Your task to perform on an android device: install app "Lyft - Rideshare, Bikes, Scooters & Transit" Image 0: 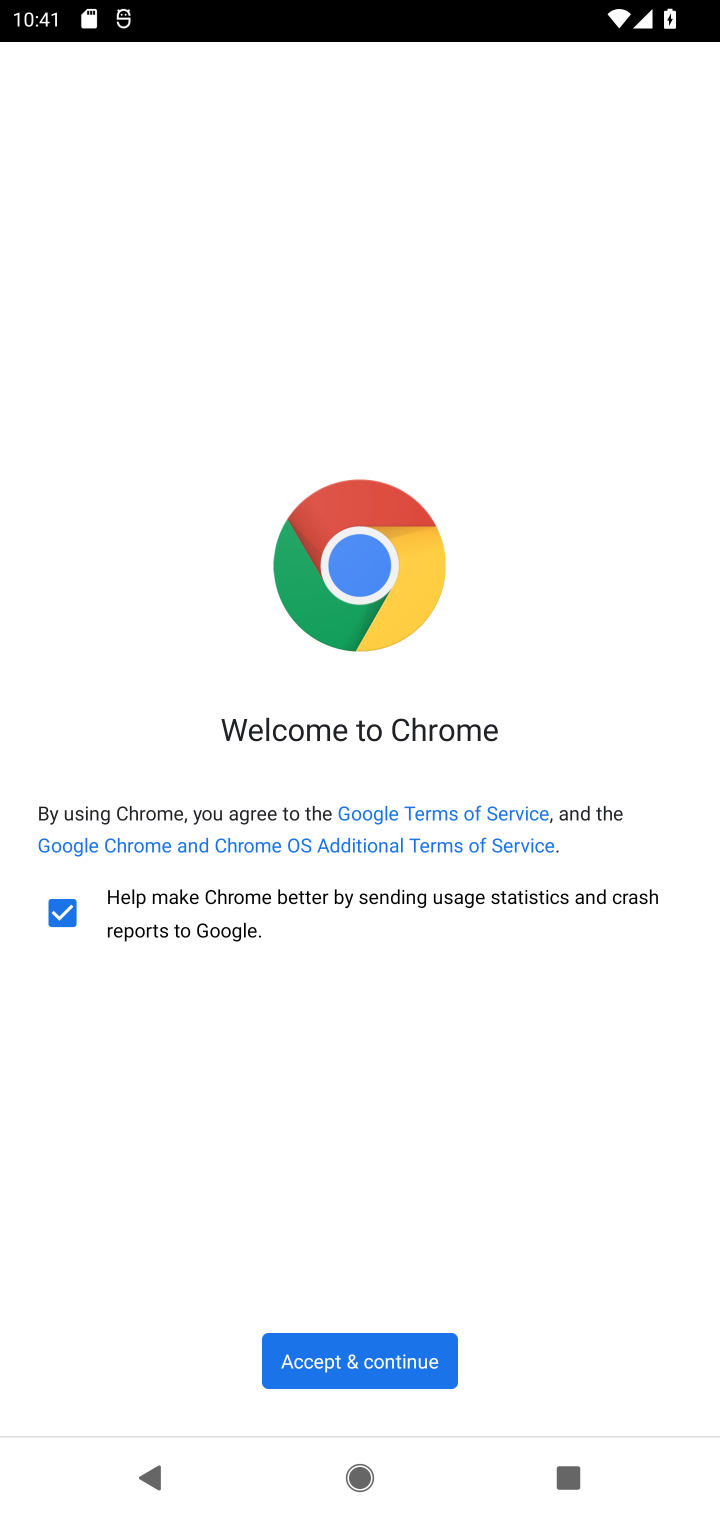
Step 0: press home button
Your task to perform on an android device: install app "Lyft - Rideshare, Bikes, Scooters & Transit" Image 1: 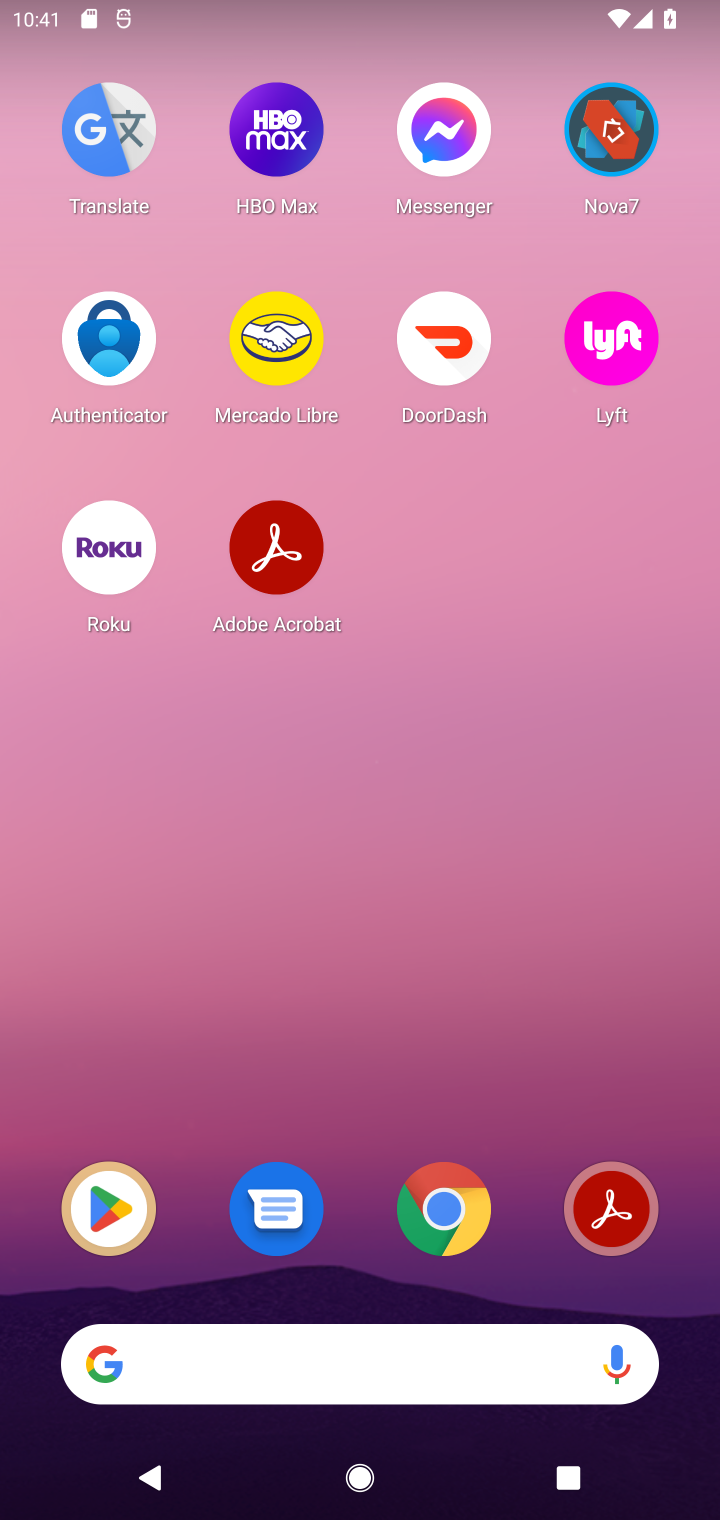
Step 1: drag from (490, 985) to (440, 158)
Your task to perform on an android device: install app "Lyft - Rideshare, Bikes, Scooters & Transit" Image 2: 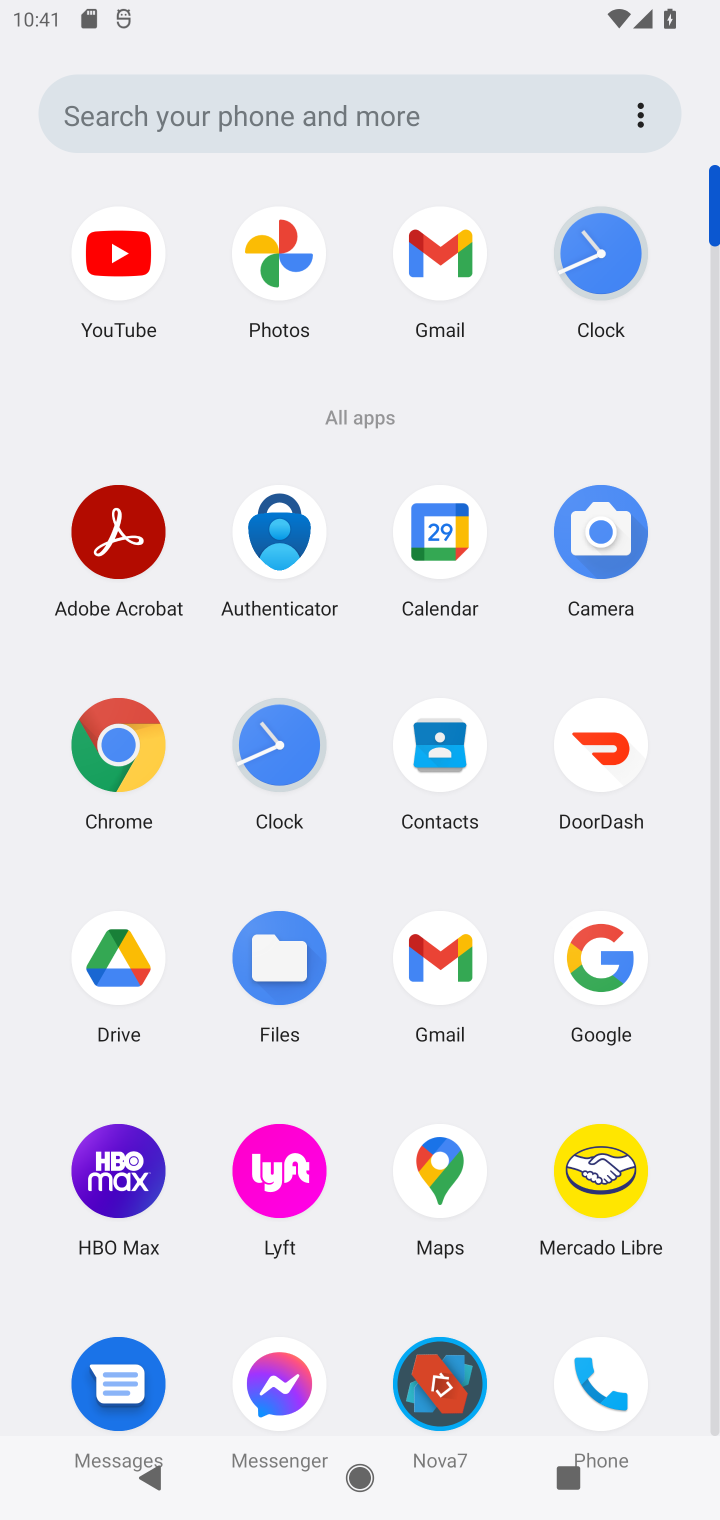
Step 2: drag from (518, 1249) to (502, 497)
Your task to perform on an android device: install app "Lyft - Rideshare, Bikes, Scooters & Transit" Image 3: 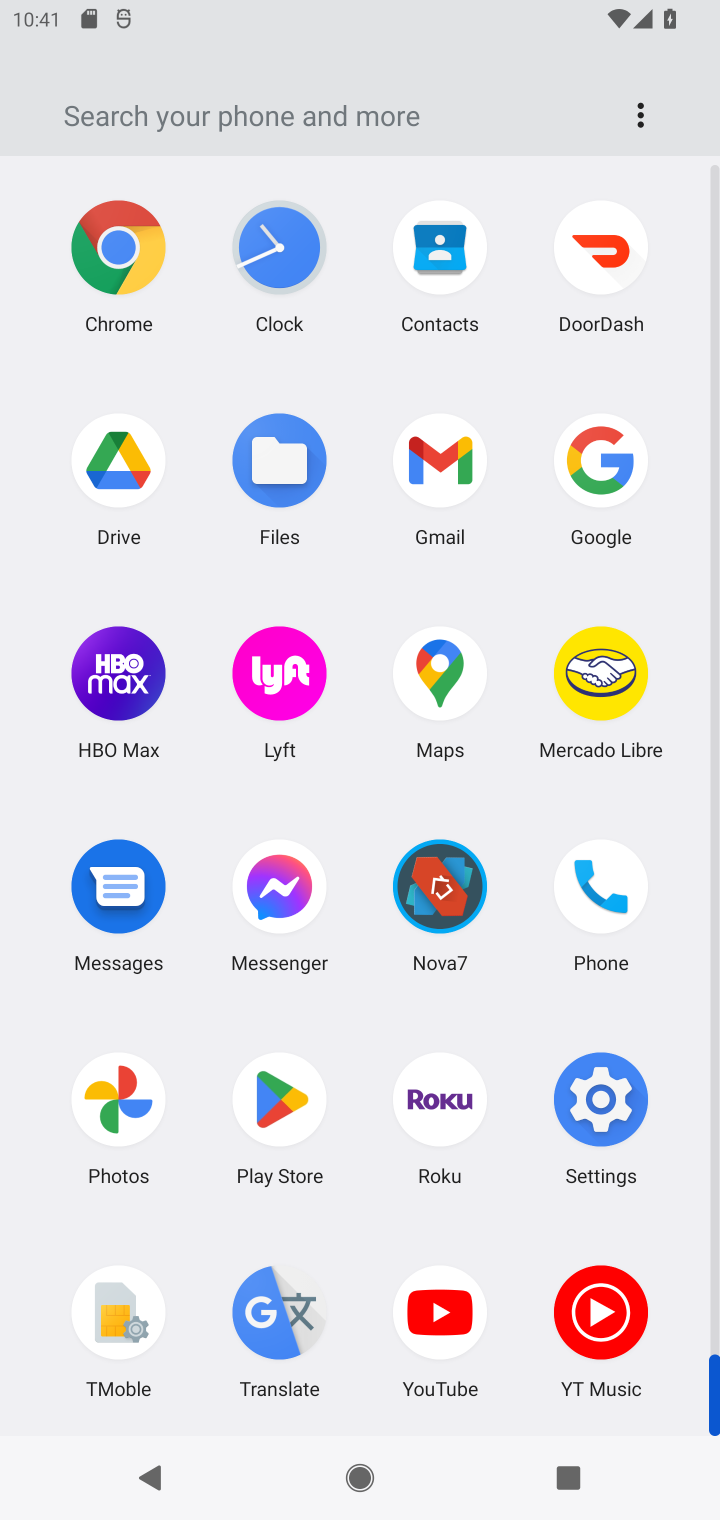
Step 3: click (286, 1086)
Your task to perform on an android device: install app "Lyft - Rideshare, Bikes, Scooters & Transit" Image 4: 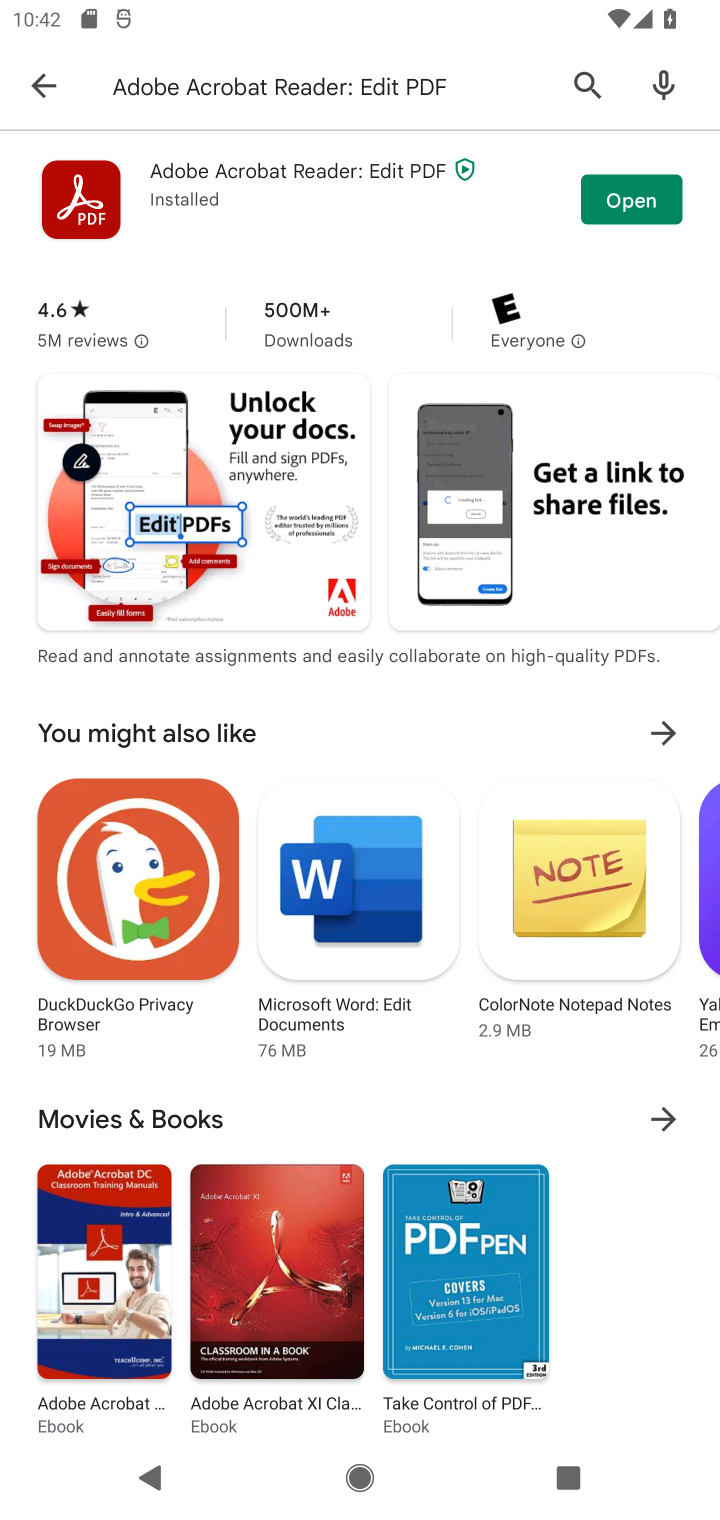
Step 4: click (297, 91)
Your task to perform on an android device: install app "Lyft - Rideshare, Bikes, Scooters & Transit" Image 5: 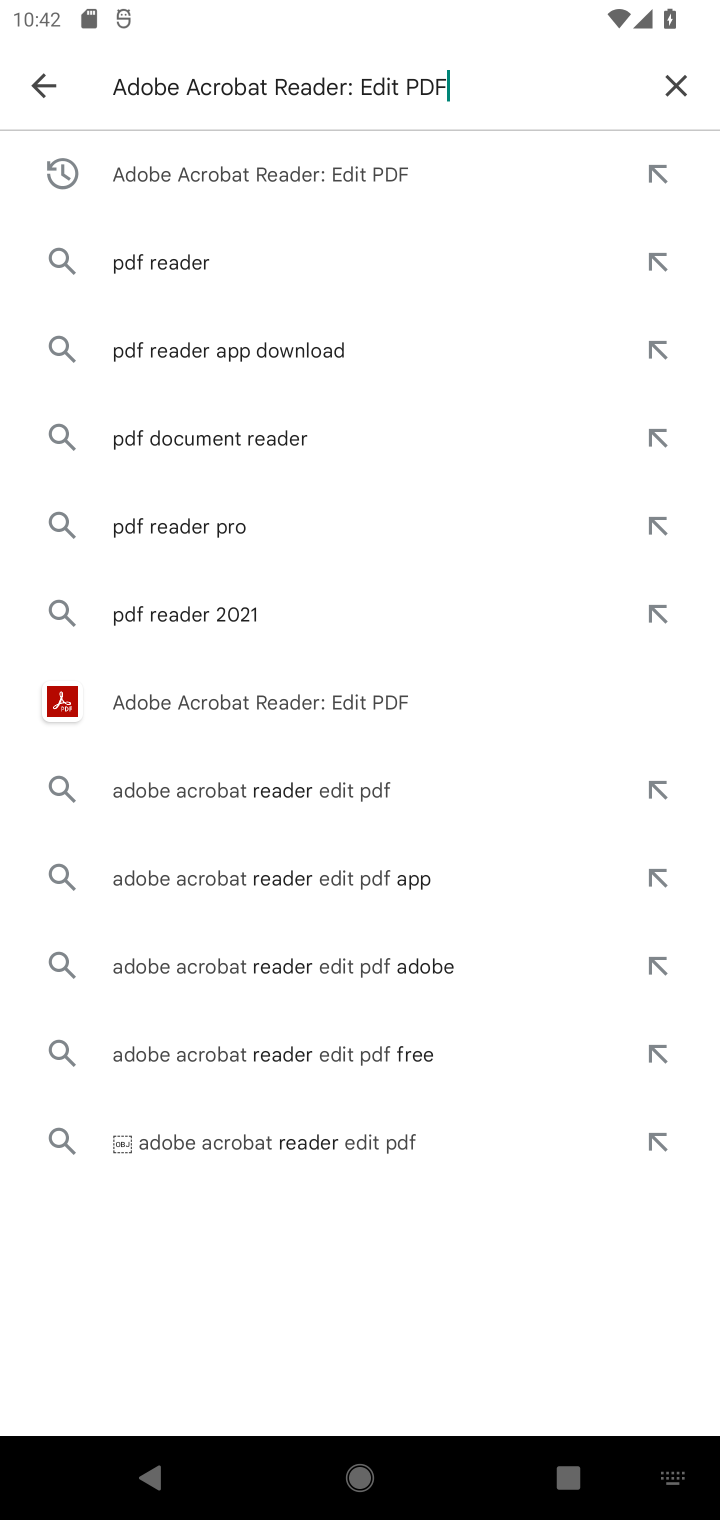
Step 5: click (690, 83)
Your task to perform on an android device: install app "Lyft - Rideshare, Bikes, Scooters & Transit" Image 6: 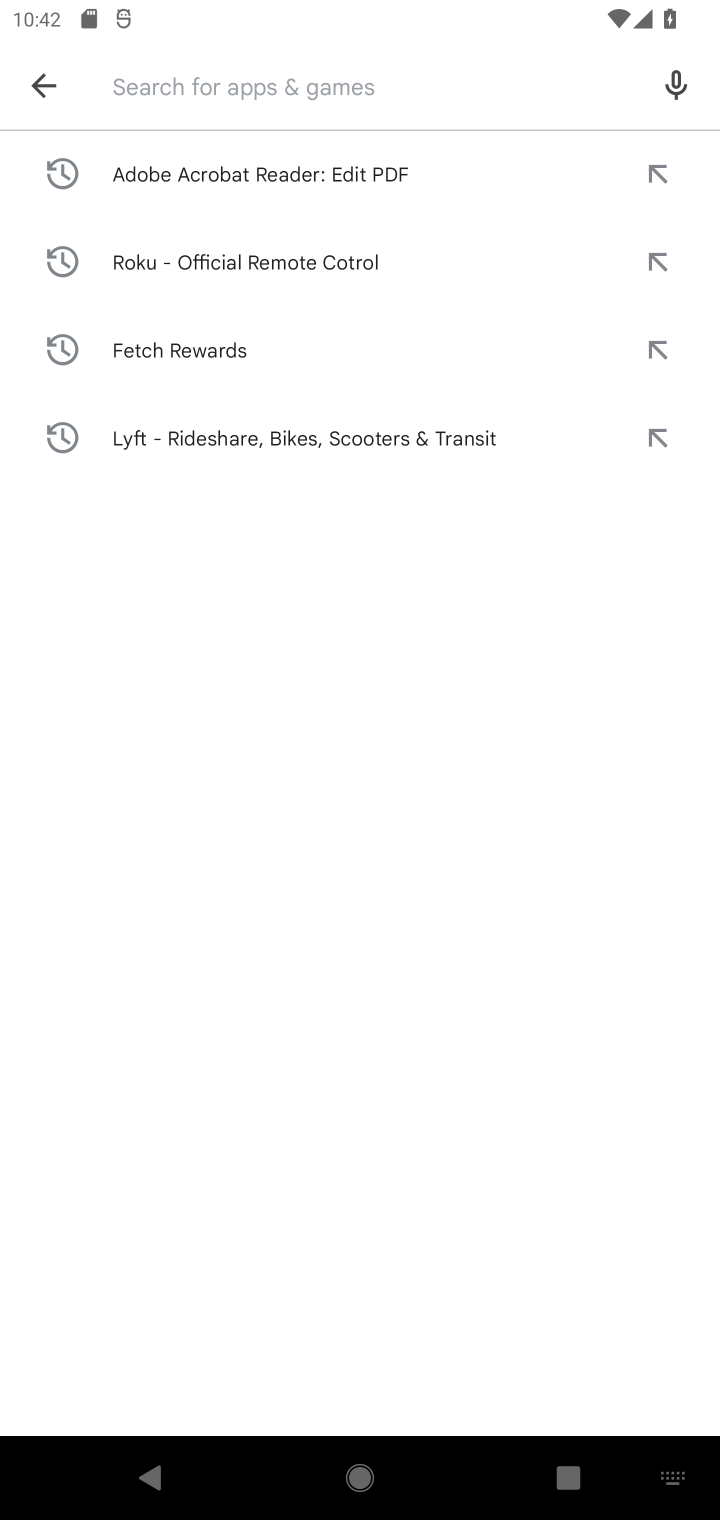
Step 6: type "Lyft"
Your task to perform on an android device: install app "Lyft - Rideshare, Bikes, Scooters & Transit" Image 7: 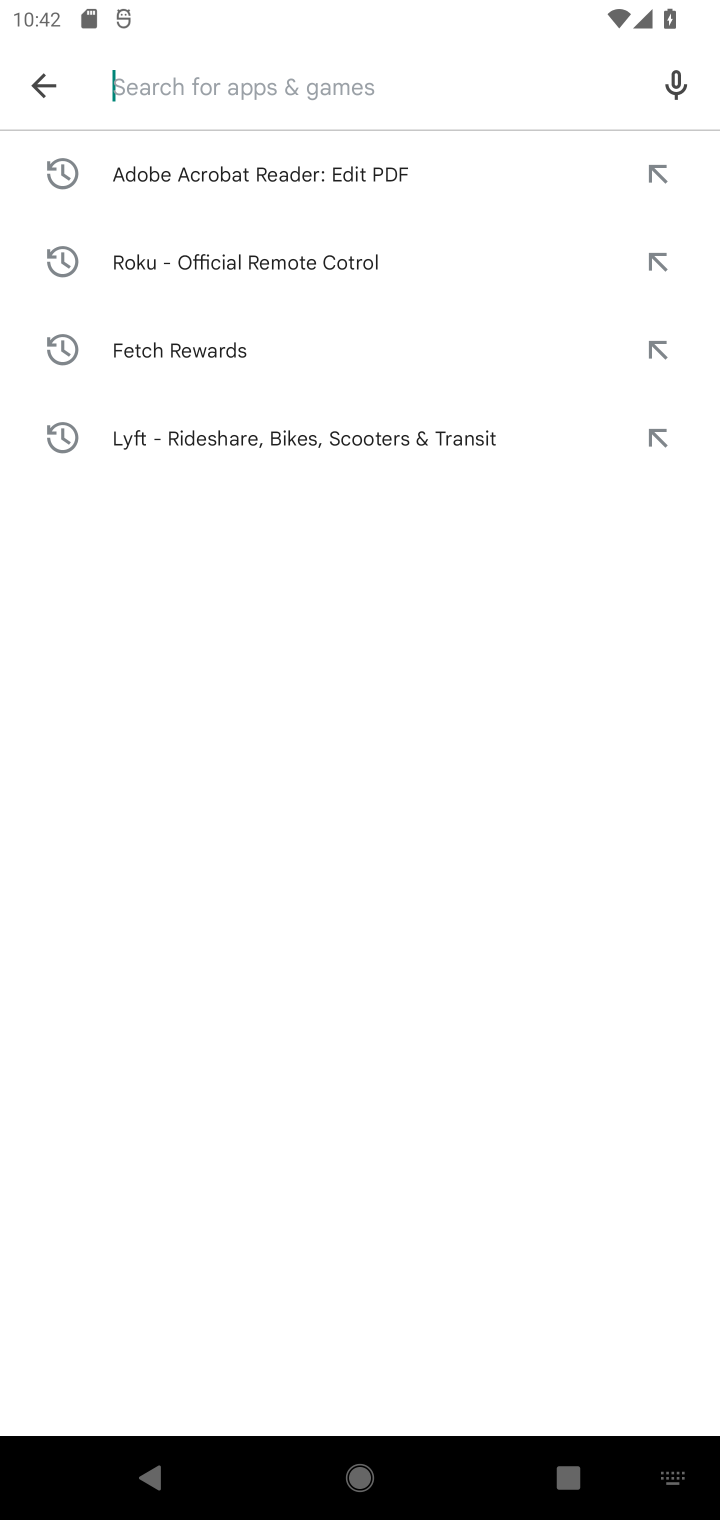
Step 7: click (458, 433)
Your task to perform on an android device: install app "Lyft - Rideshare, Bikes, Scooters & Transit" Image 8: 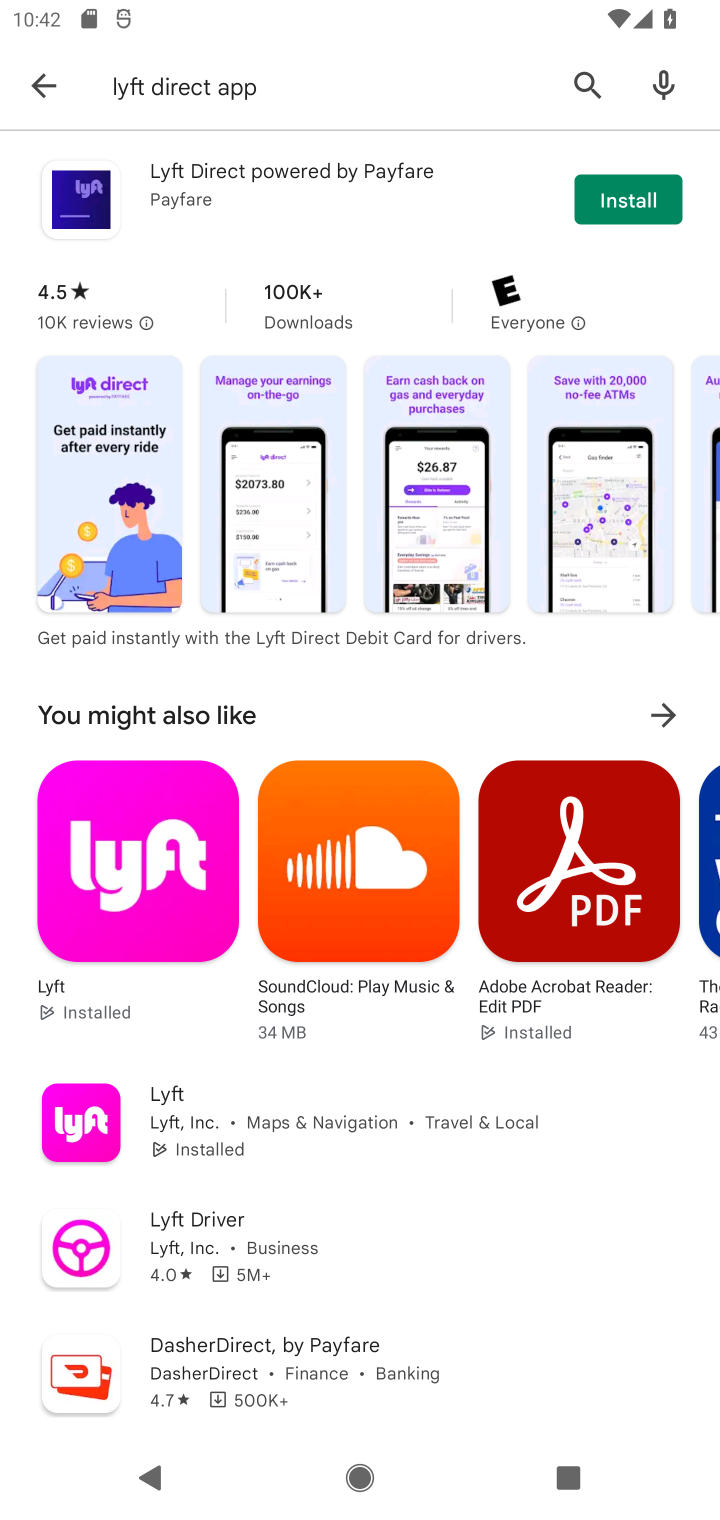
Step 8: click (652, 203)
Your task to perform on an android device: install app "Lyft - Rideshare, Bikes, Scooters & Transit" Image 9: 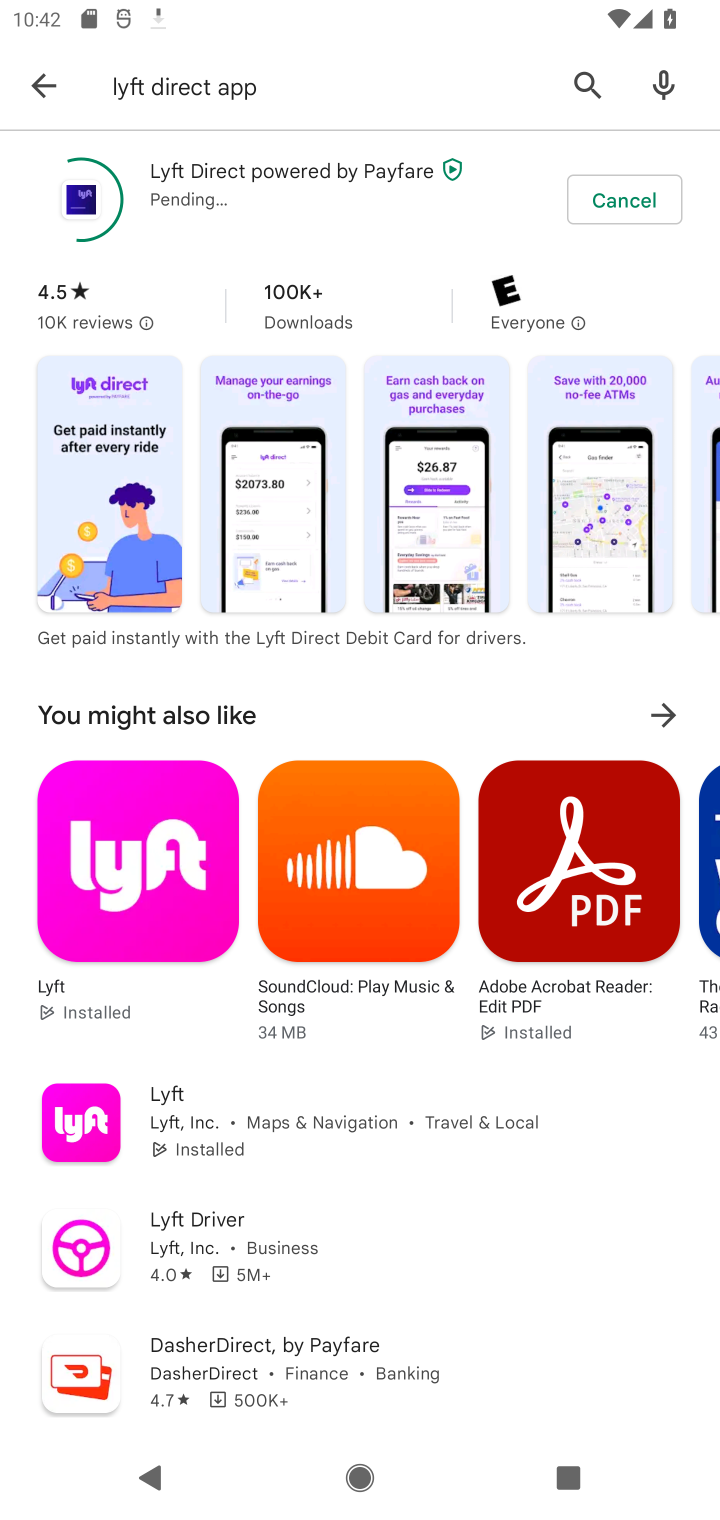
Step 9: click (652, 201)
Your task to perform on an android device: install app "Lyft - Rideshare, Bikes, Scooters & Transit" Image 10: 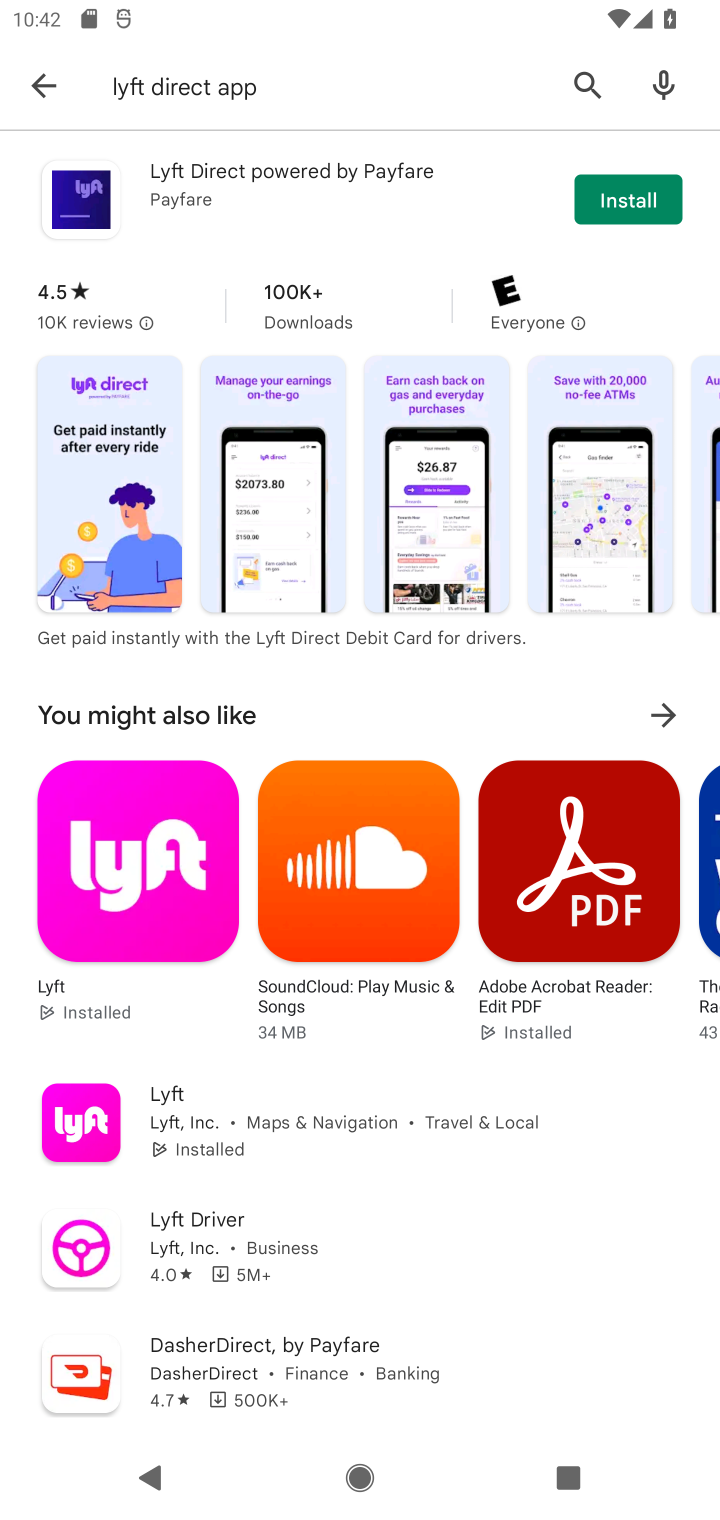
Step 10: click (259, 1096)
Your task to perform on an android device: install app "Lyft - Rideshare, Bikes, Scooters & Transit" Image 11: 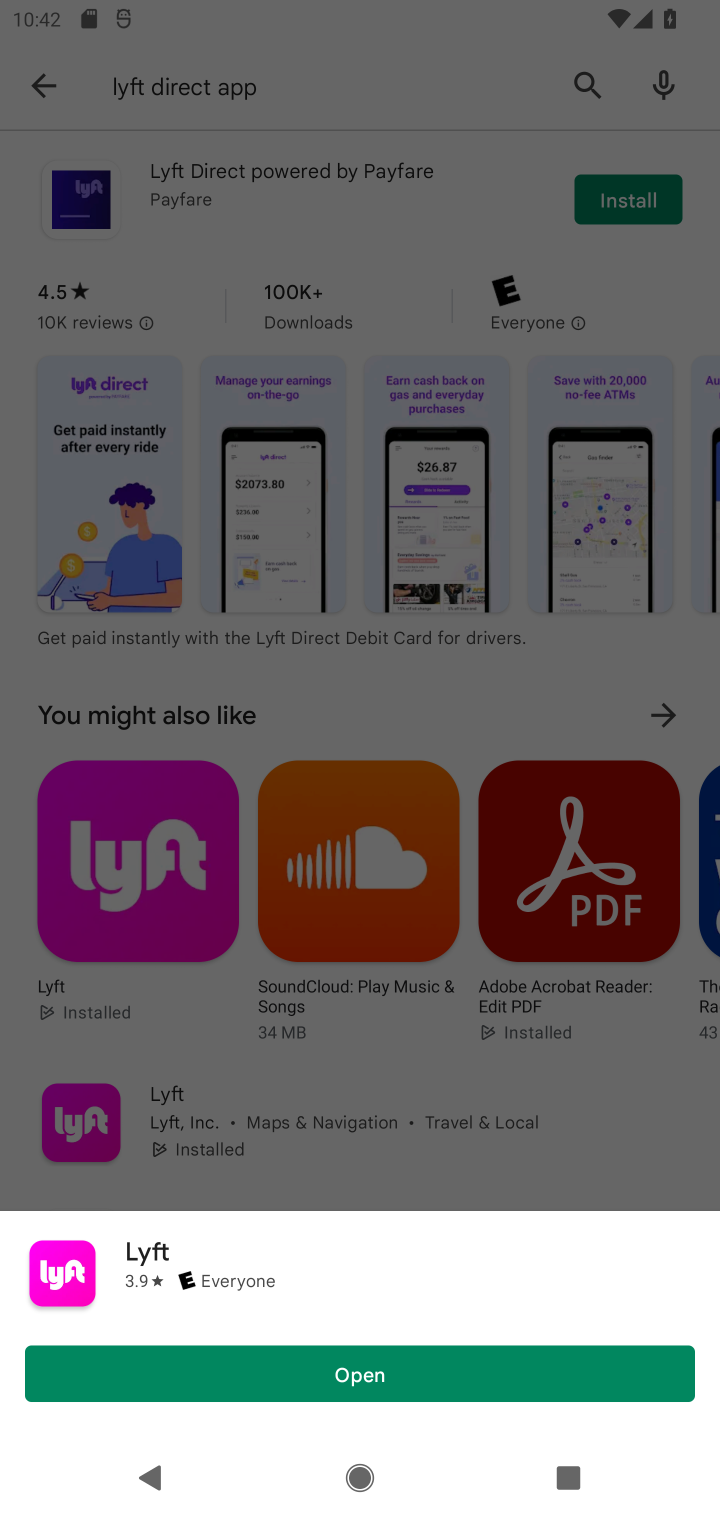
Step 11: task complete